Your task to perform on an android device: turn on priority inbox in the gmail app Image 0: 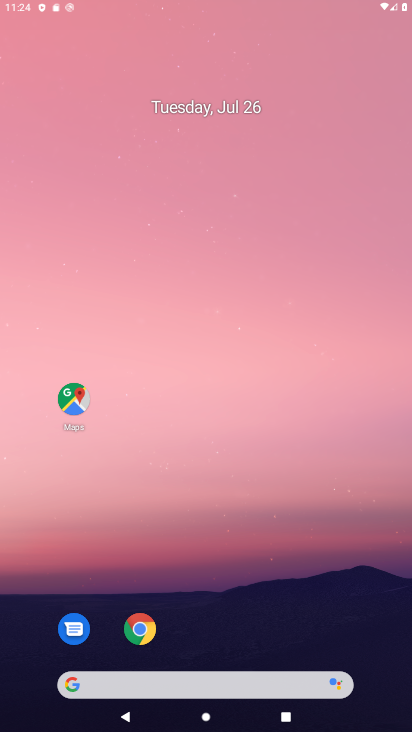
Step 0: drag from (229, 684) to (229, 346)
Your task to perform on an android device: turn on priority inbox in the gmail app Image 1: 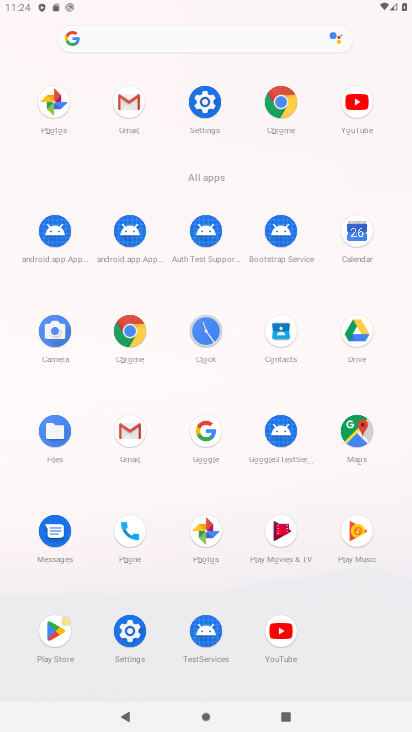
Step 1: click (124, 432)
Your task to perform on an android device: turn on priority inbox in the gmail app Image 2: 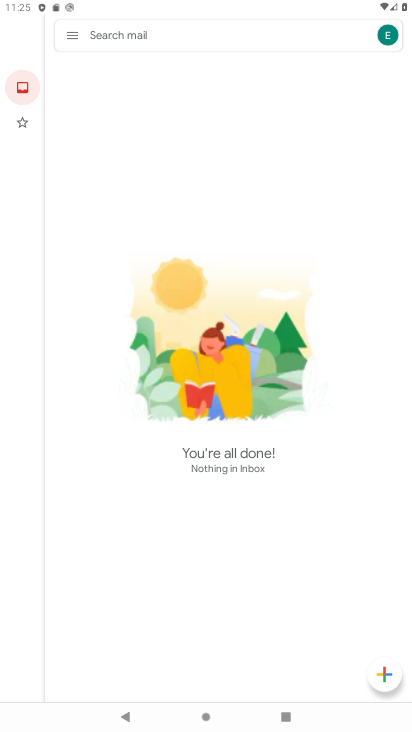
Step 2: click (69, 35)
Your task to perform on an android device: turn on priority inbox in the gmail app Image 3: 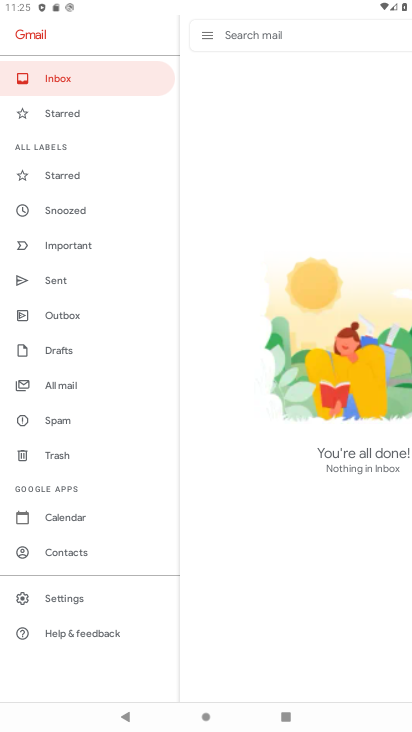
Step 3: click (58, 597)
Your task to perform on an android device: turn on priority inbox in the gmail app Image 4: 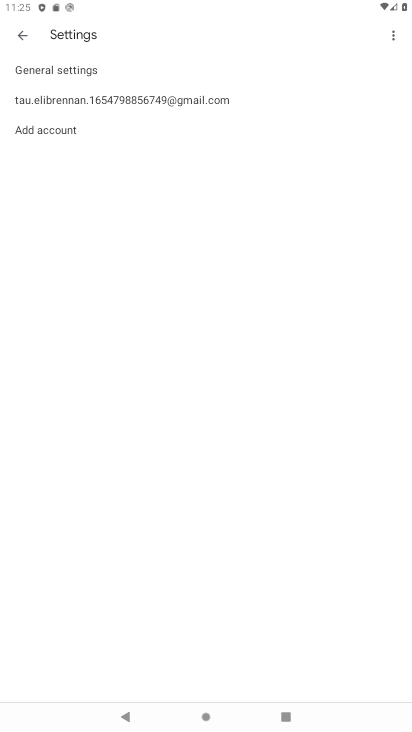
Step 4: click (111, 99)
Your task to perform on an android device: turn on priority inbox in the gmail app Image 5: 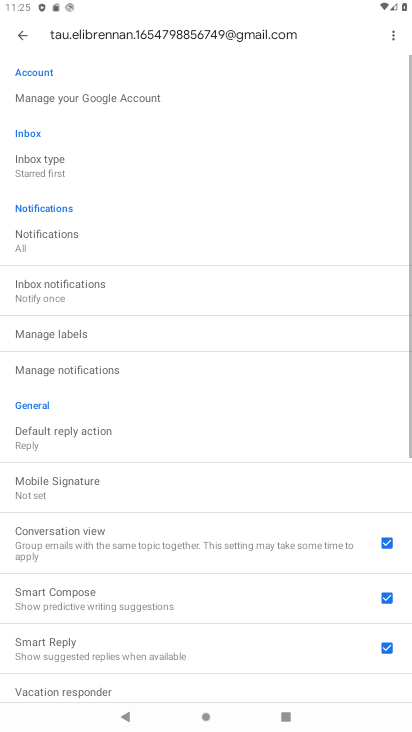
Step 5: click (39, 176)
Your task to perform on an android device: turn on priority inbox in the gmail app Image 6: 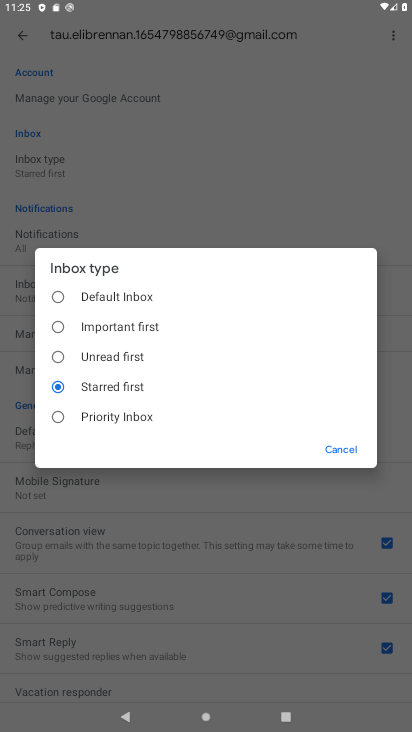
Step 6: click (59, 417)
Your task to perform on an android device: turn on priority inbox in the gmail app Image 7: 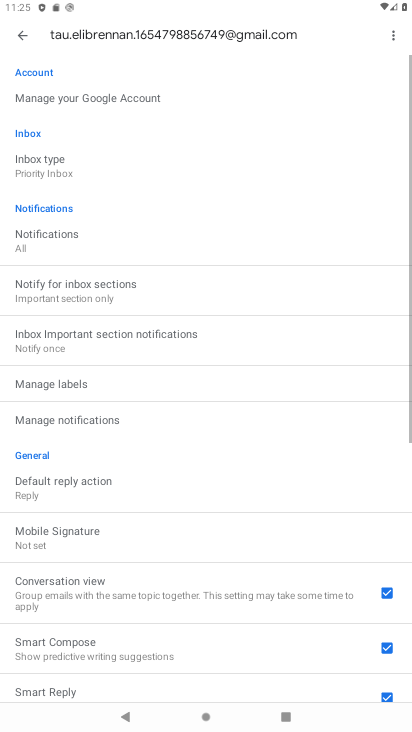
Step 7: task complete